Your task to perform on an android device: Open location settings Image 0: 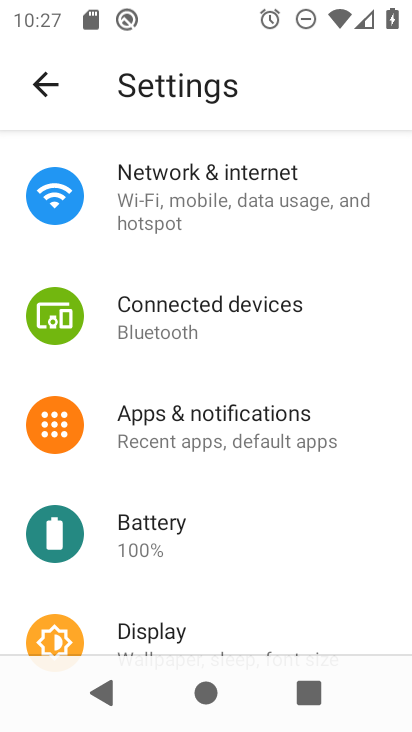
Step 0: drag from (79, 630) to (219, 143)
Your task to perform on an android device: Open location settings Image 1: 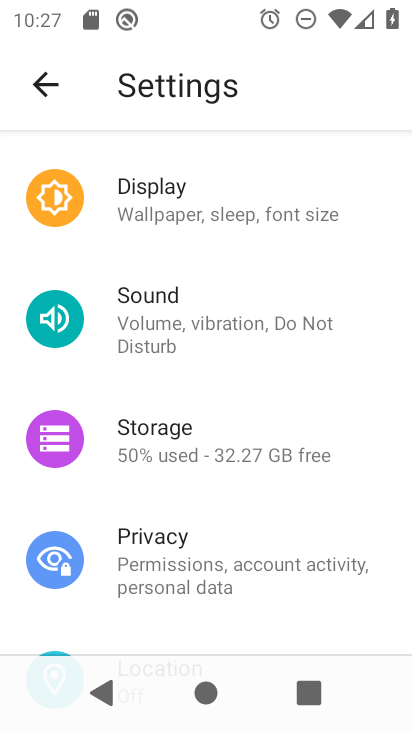
Step 1: drag from (108, 538) to (216, 120)
Your task to perform on an android device: Open location settings Image 2: 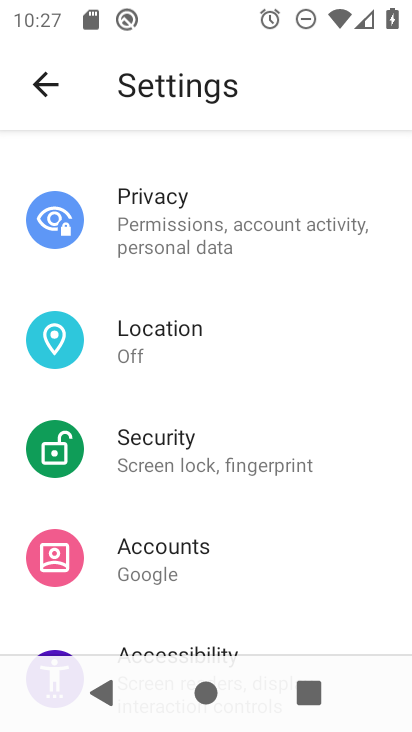
Step 2: click (165, 334)
Your task to perform on an android device: Open location settings Image 3: 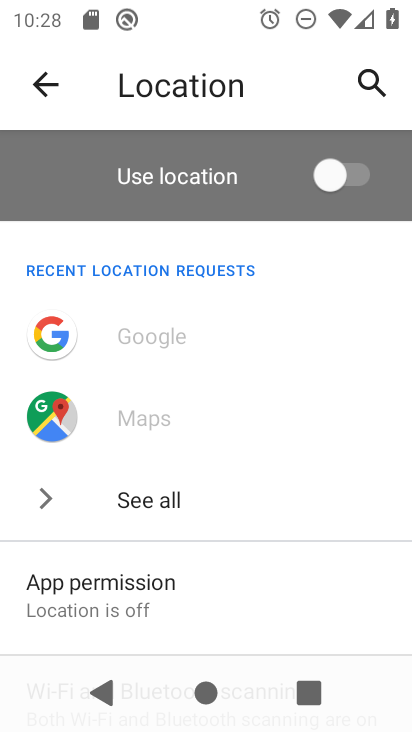
Step 3: task complete